Your task to perform on an android device: Go to settings Image 0: 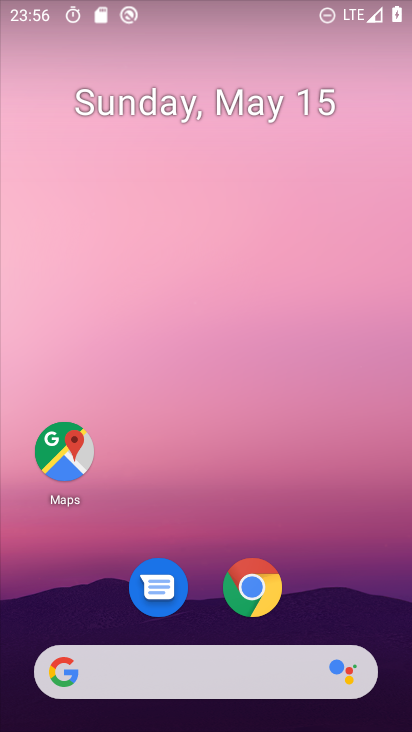
Step 0: drag from (204, 621) to (201, 216)
Your task to perform on an android device: Go to settings Image 1: 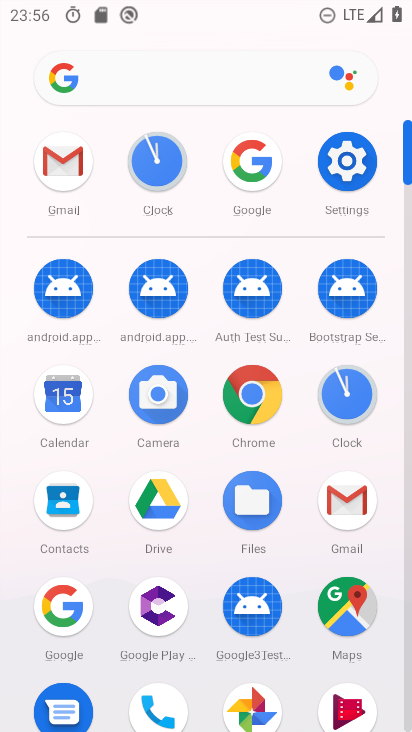
Step 1: click (337, 157)
Your task to perform on an android device: Go to settings Image 2: 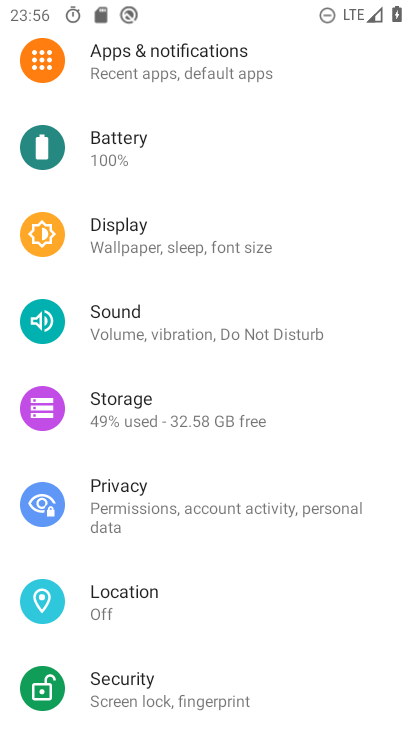
Step 2: task complete